Your task to perform on an android device: turn off notifications settings in the gmail app Image 0: 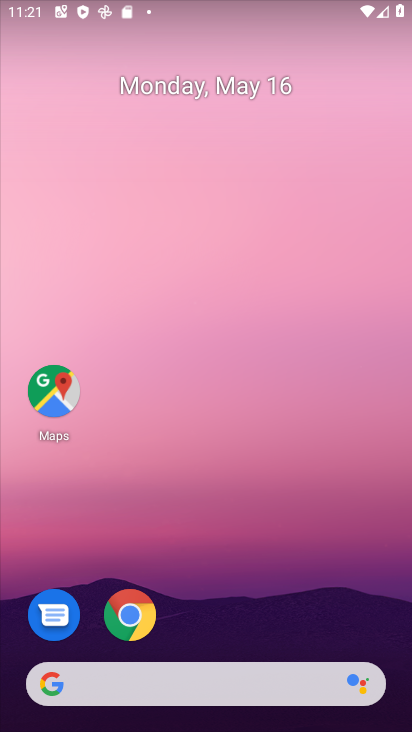
Step 0: drag from (205, 727) to (206, 202)
Your task to perform on an android device: turn off notifications settings in the gmail app Image 1: 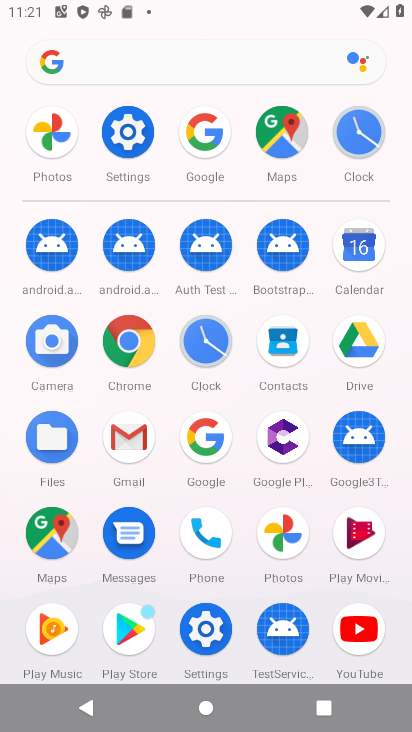
Step 1: click (130, 429)
Your task to perform on an android device: turn off notifications settings in the gmail app Image 2: 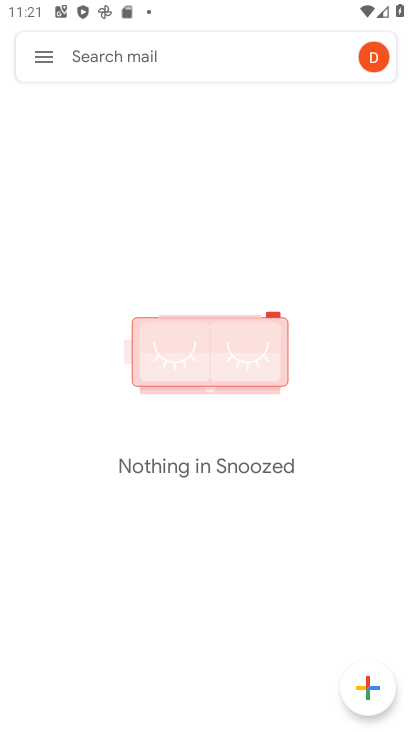
Step 2: click (41, 54)
Your task to perform on an android device: turn off notifications settings in the gmail app Image 3: 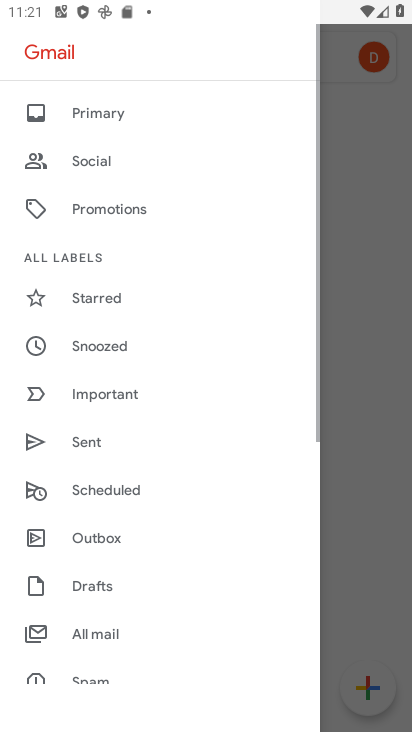
Step 3: drag from (77, 652) to (80, 315)
Your task to perform on an android device: turn off notifications settings in the gmail app Image 4: 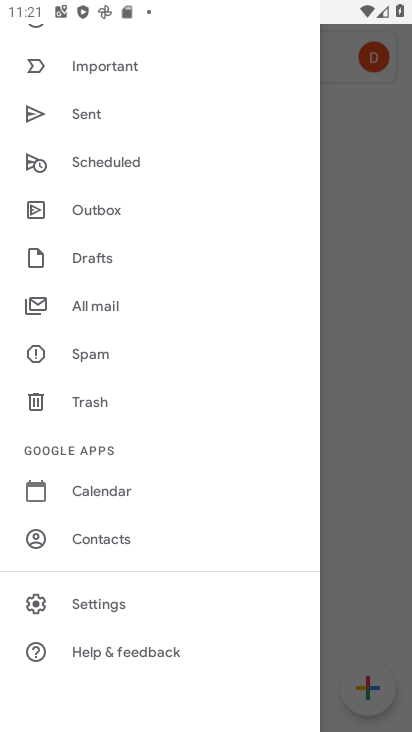
Step 4: drag from (103, 655) to (105, 291)
Your task to perform on an android device: turn off notifications settings in the gmail app Image 5: 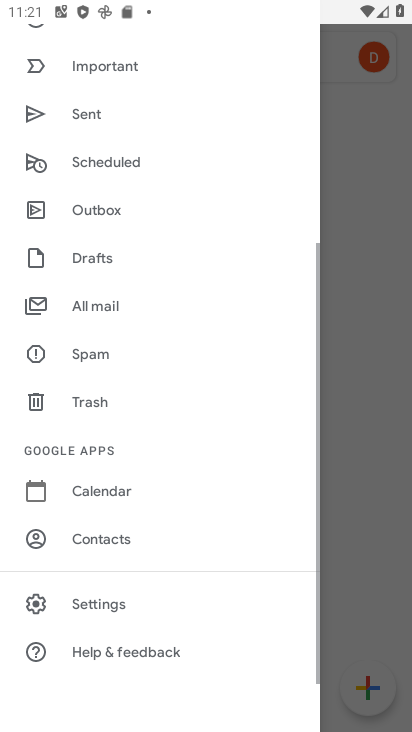
Step 5: click (94, 603)
Your task to perform on an android device: turn off notifications settings in the gmail app Image 6: 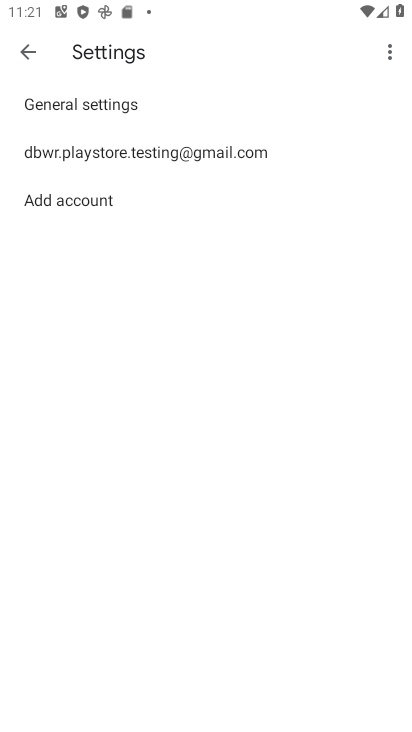
Step 6: click (131, 146)
Your task to perform on an android device: turn off notifications settings in the gmail app Image 7: 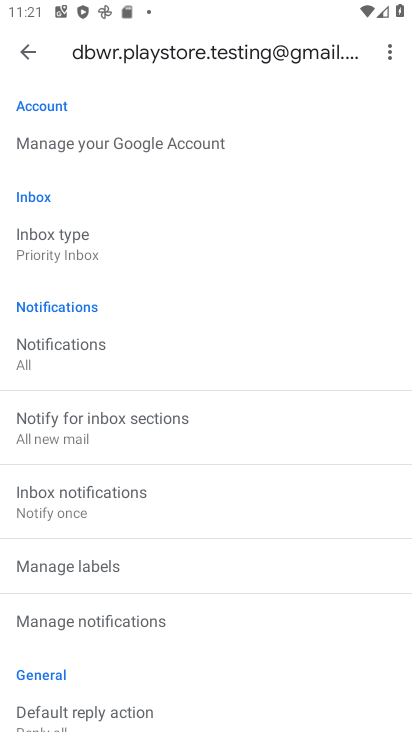
Step 7: click (63, 348)
Your task to perform on an android device: turn off notifications settings in the gmail app Image 8: 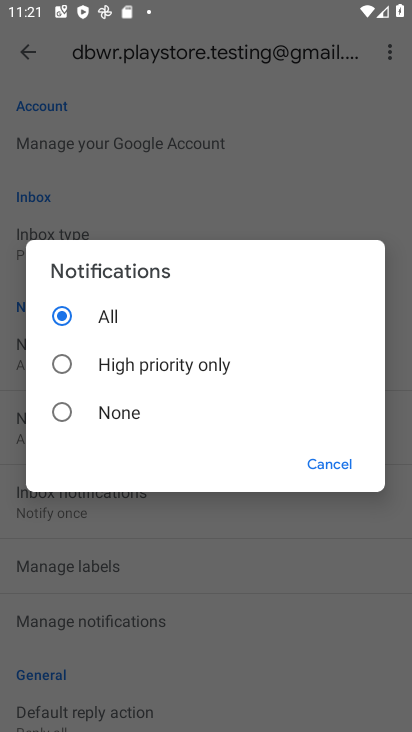
Step 8: click (67, 409)
Your task to perform on an android device: turn off notifications settings in the gmail app Image 9: 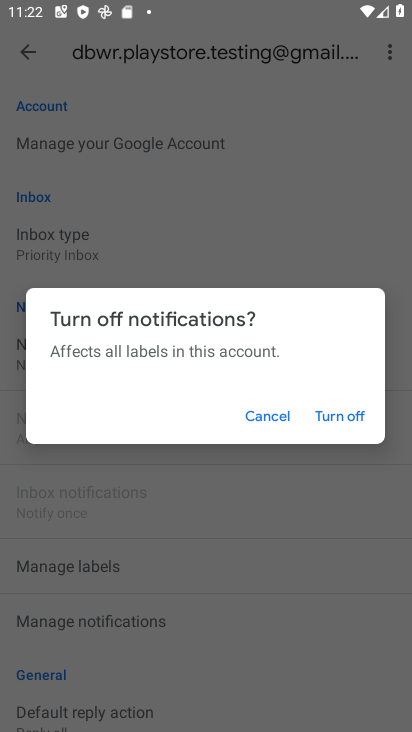
Step 9: click (327, 412)
Your task to perform on an android device: turn off notifications settings in the gmail app Image 10: 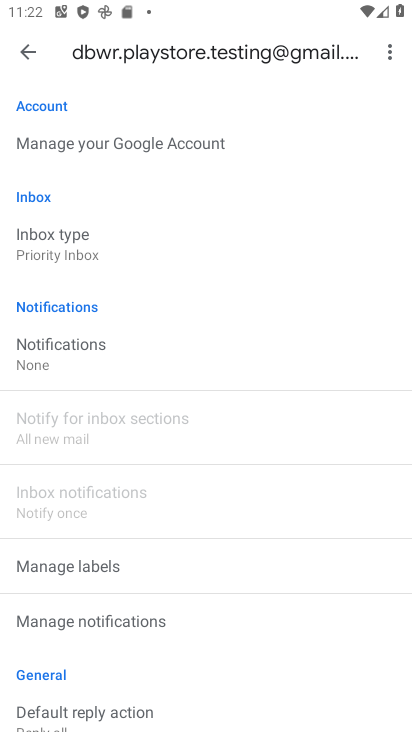
Step 10: task complete